Your task to perform on an android device: check battery use Image 0: 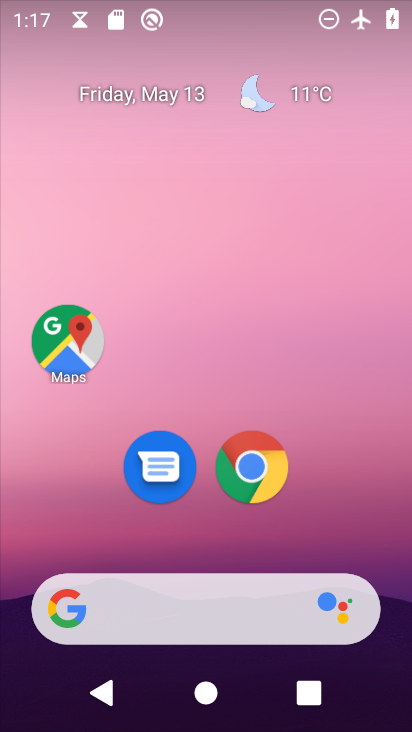
Step 0: drag from (278, 390) to (223, 75)
Your task to perform on an android device: check battery use Image 1: 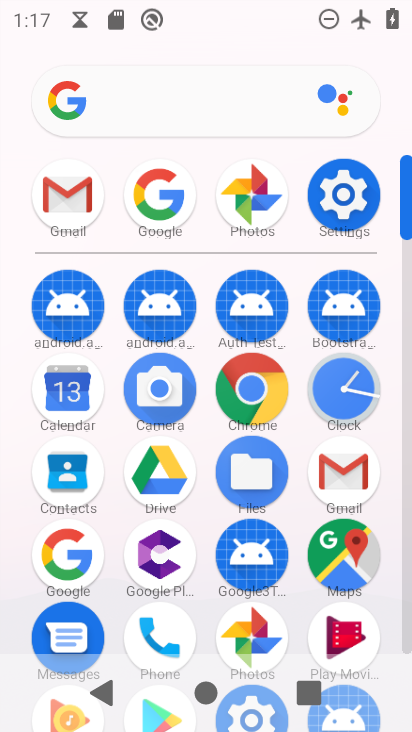
Step 1: click (340, 207)
Your task to perform on an android device: check battery use Image 2: 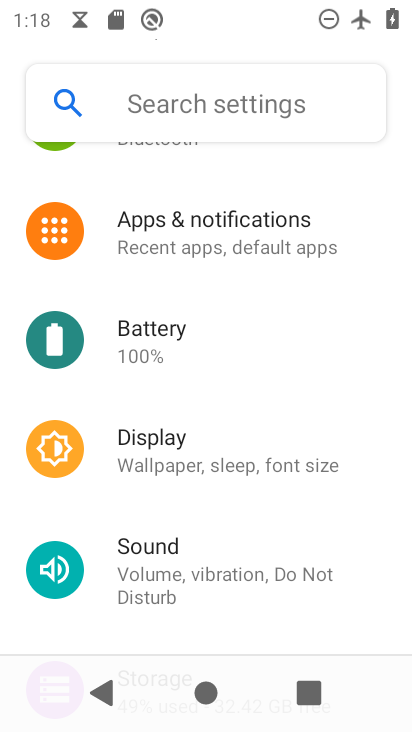
Step 2: click (221, 331)
Your task to perform on an android device: check battery use Image 3: 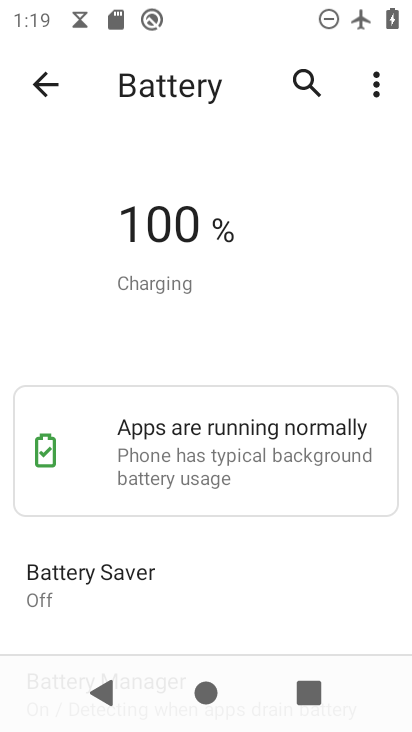
Step 3: task complete